Your task to perform on an android device: Open Yahoo.com Image 0: 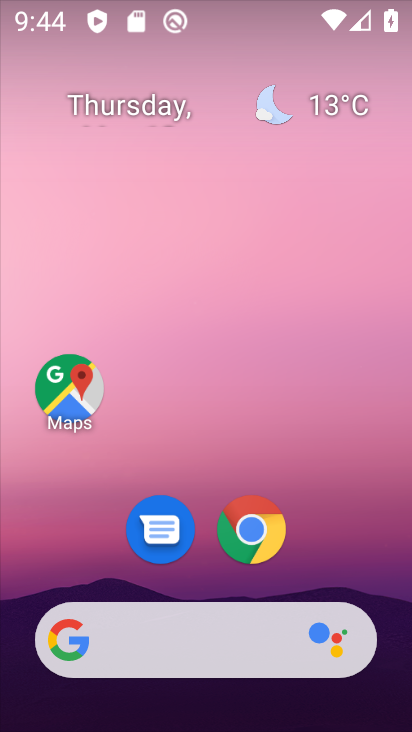
Step 0: click (226, 652)
Your task to perform on an android device: Open Yahoo.com Image 1: 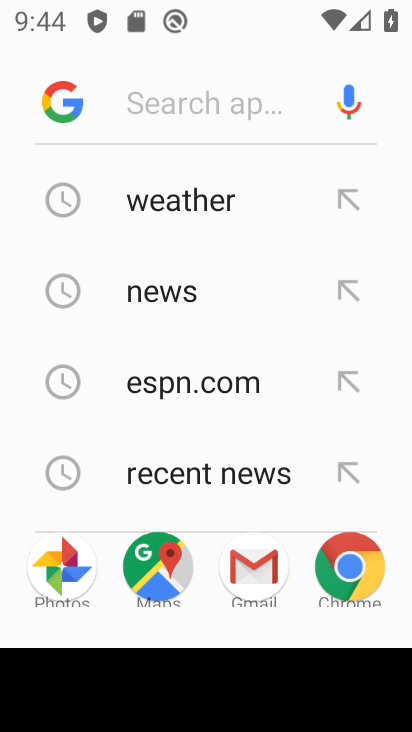
Step 1: type "Yahoo.com"
Your task to perform on an android device: Open Yahoo.com Image 2: 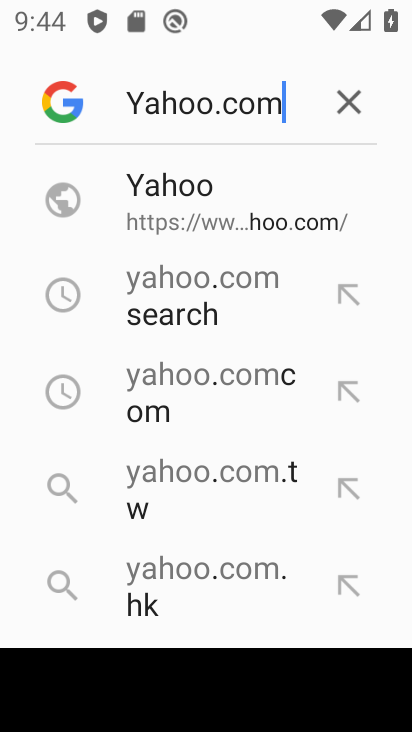
Step 2: click (180, 203)
Your task to perform on an android device: Open Yahoo.com Image 3: 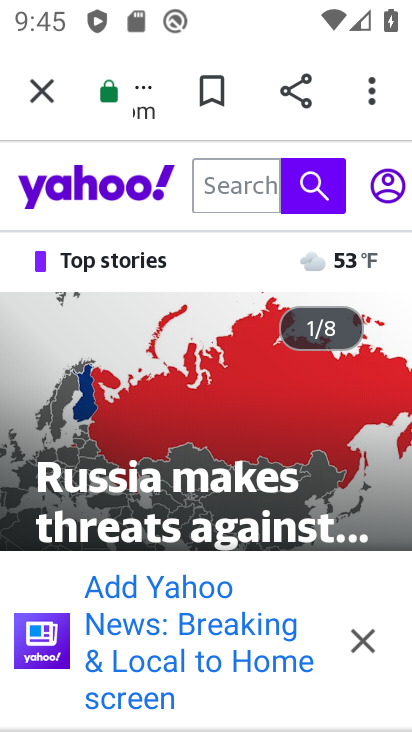
Step 3: task complete